Your task to perform on an android device: change the clock display to analog Image 0: 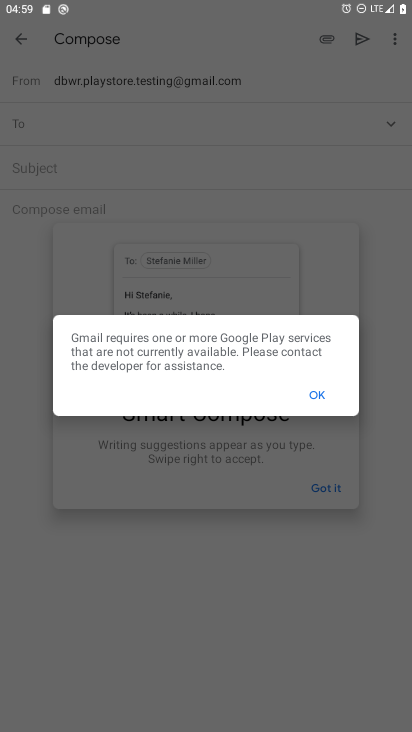
Step 0: press home button
Your task to perform on an android device: change the clock display to analog Image 1: 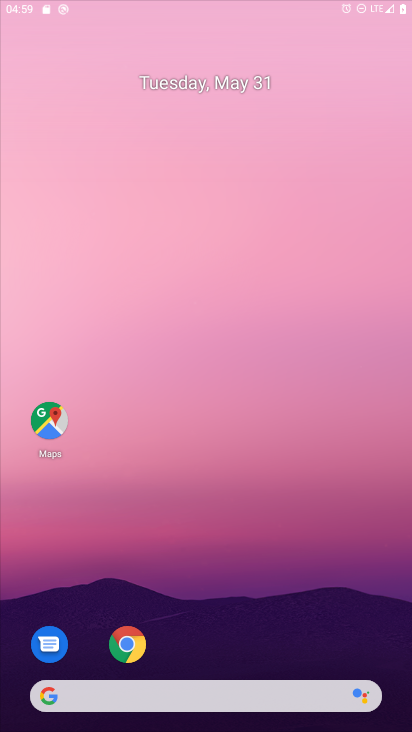
Step 1: drag from (347, 598) to (273, 57)
Your task to perform on an android device: change the clock display to analog Image 2: 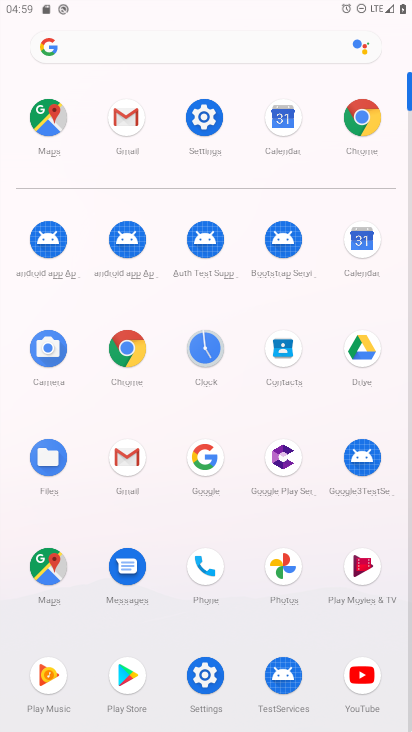
Step 2: click (209, 346)
Your task to perform on an android device: change the clock display to analog Image 3: 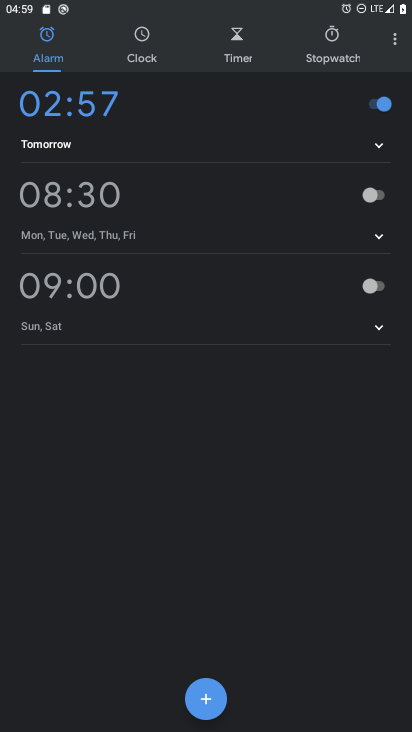
Step 3: click (395, 42)
Your task to perform on an android device: change the clock display to analog Image 4: 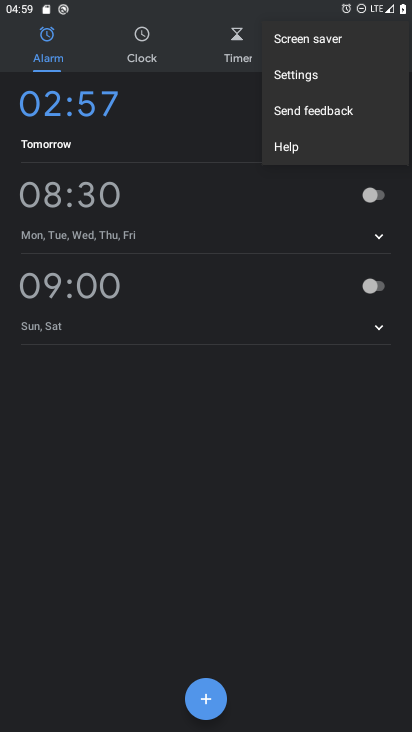
Step 4: click (281, 74)
Your task to perform on an android device: change the clock display to analog Image 5: 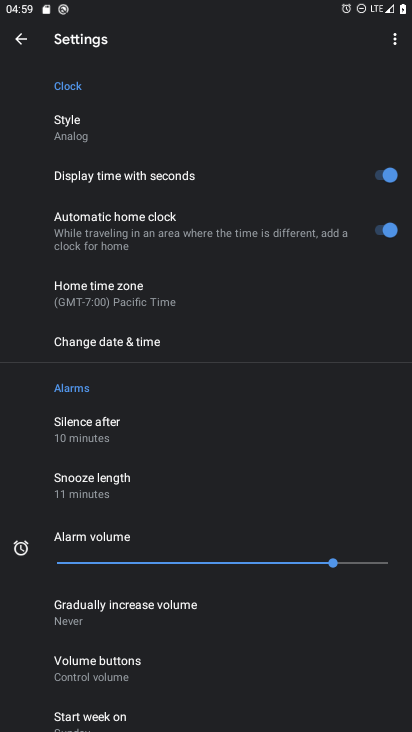
Step 5: task complete